Your task to perform on an android device: set the stopwatch Image 0: 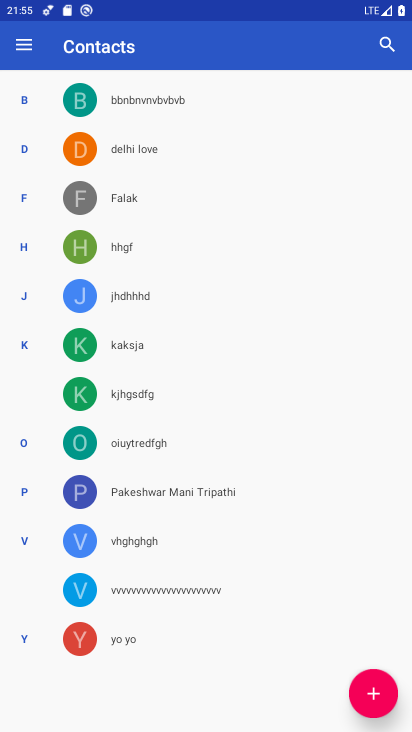
Step 0: press home button
Your task to perform on an android device: set the stopwatch Image 1: 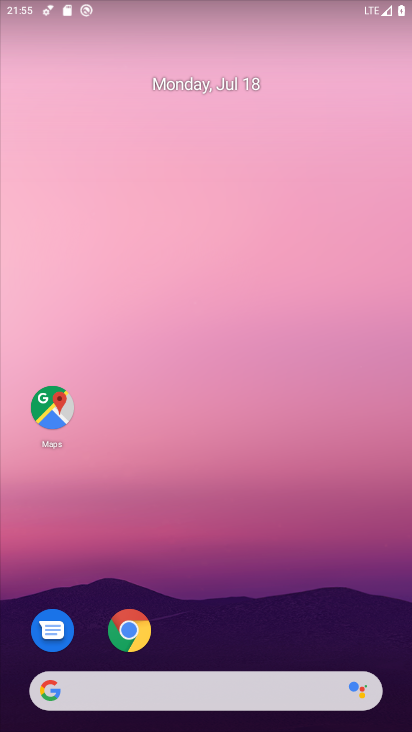
Step 1: drag from (261, 621) to (247, 277)
Your task to perform on an android device: set the stopwatch Image 2: 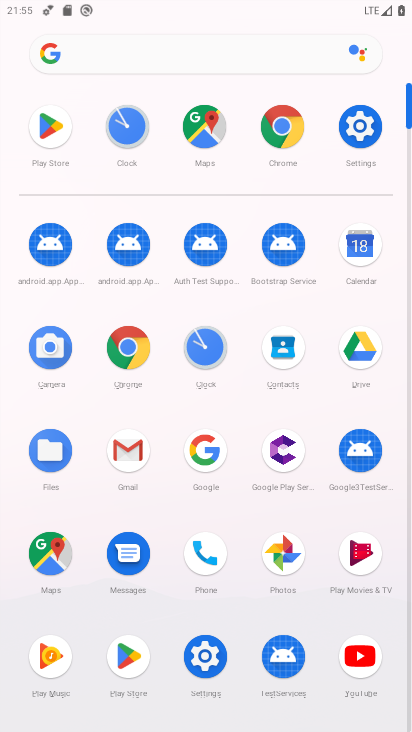
Step 2: click (211, 351)
Your task to perform on an android device: set the stopwatch Image 3: 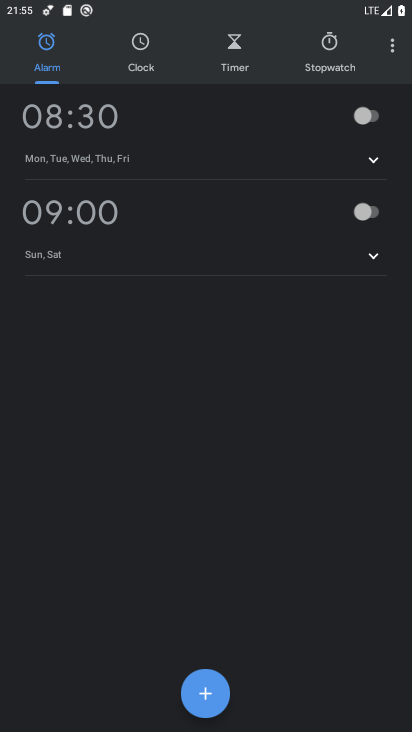
Step 3: click (306, 51)
Your task to perform on an android device: set the stopwatch Image 4: 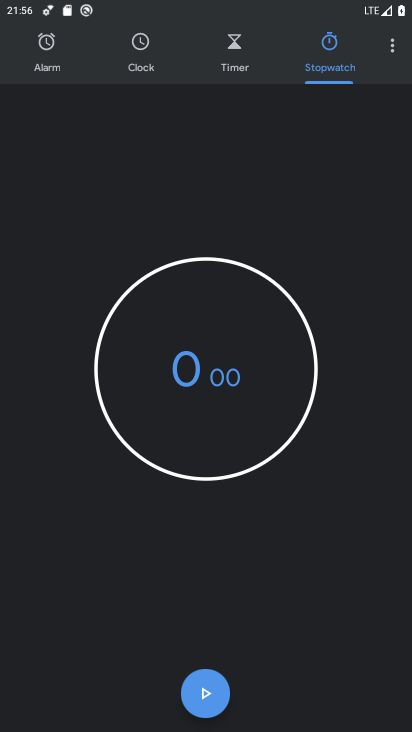
Step 4: task complete